Your task to perform on an android device: delete browsing data in the chrome app Image 0: 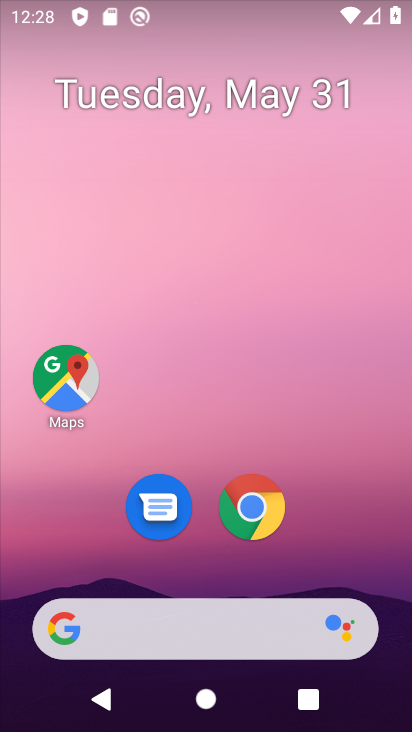
Step 0: drag from (380, 539) to (334, 91)
Your task to perform on an android device: delete browsing data in the chrome app Image 1: 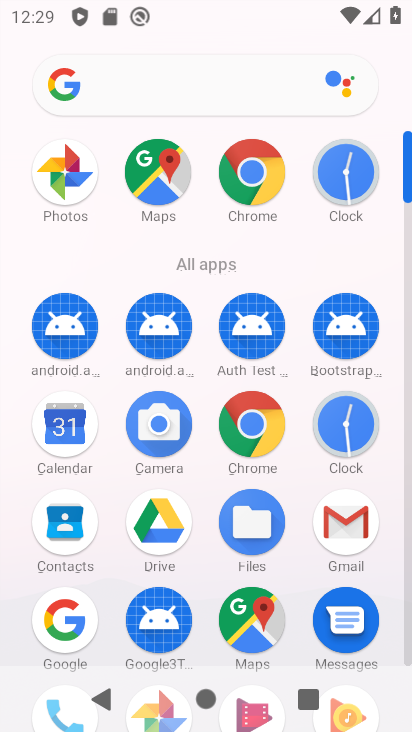
Step 1: click (264, 155)
Your task to perform on an android device: delete browsing data in the chrome app Image 2: 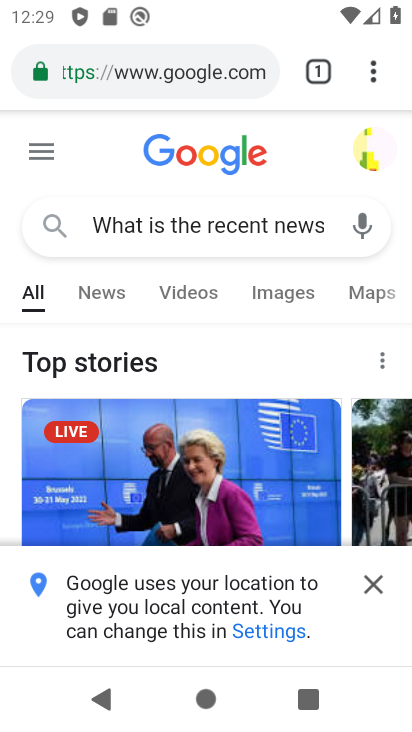
Step 2: drag from (364, 69) to (229, 491)
Your task to perform on an android device: delete browsing data in the chrome app Image 3: 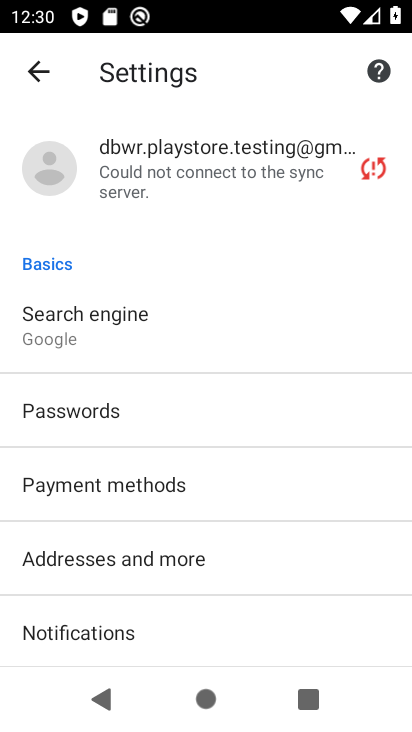
Step 3: drag from (246, 564) to (248, 223)
Your task to perform on an android device: delete browsing data in the chrome app Image 4: 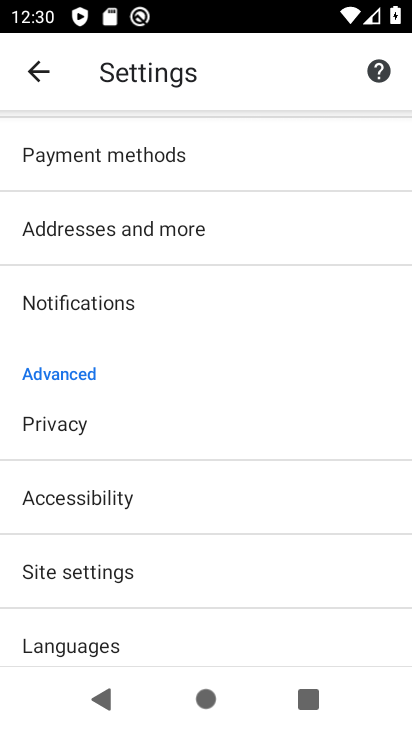
Step 4: click (51, 424)
Your task to perform on an android device: delete browsing data in the chrome app Image 5: 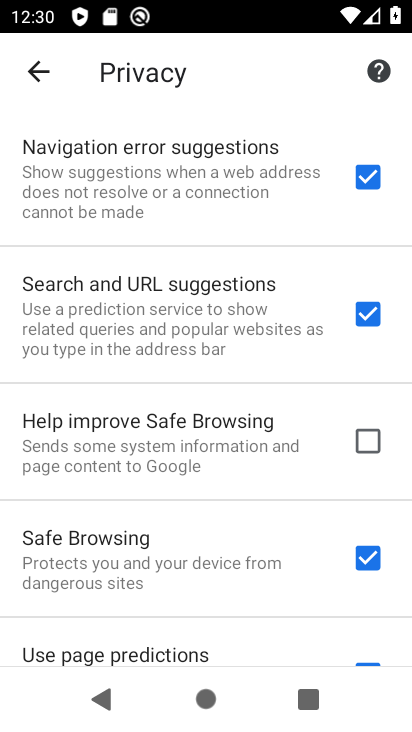
Step 5: drag from (271, 585) to (186, 141)
Your task to perform on an android device: delete browsing data in the chrome app Image 6: 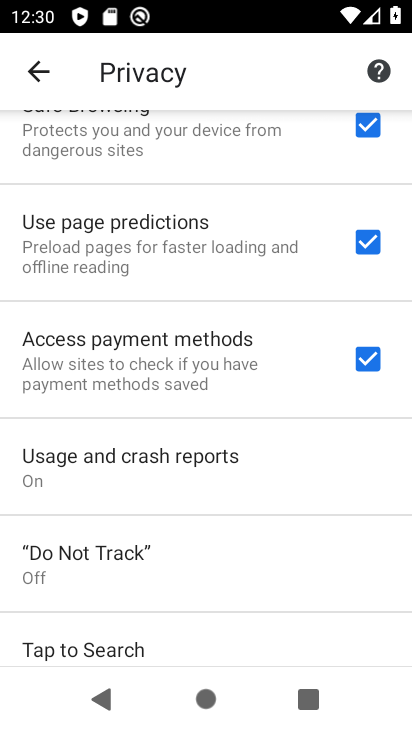
Step 6: drag from (259, 536) to (117, 8)
Your task to perform on an android device: delete browsing data in the chrome app Image 7: 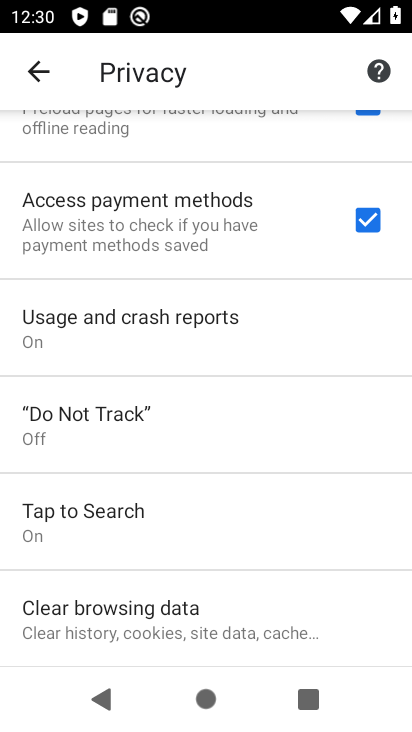
Step 7: click (179, 609)
Your task to perform on an android device: delete browsing data in the chrome app Image 8: 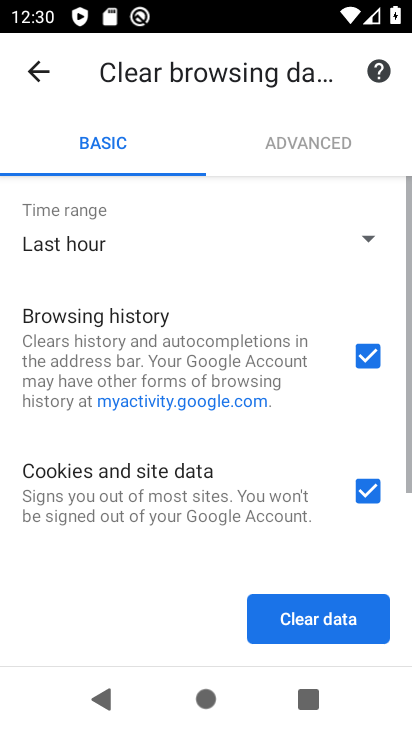
Step 8: click (279, 605)
Your task to perform on an android device: delete browsing data in the chrome app Image 9: 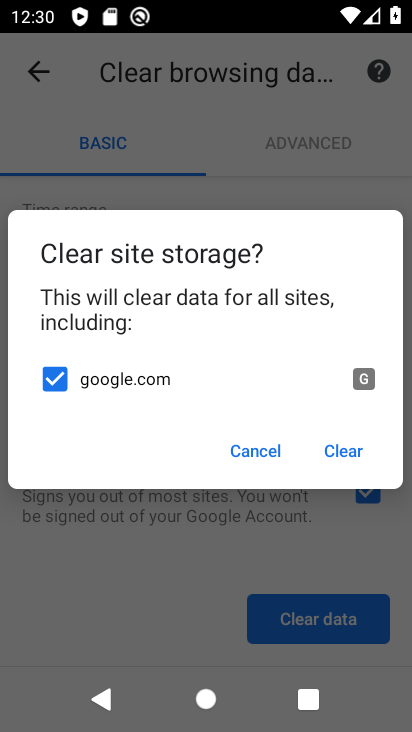
Step 9: click (345, 447)
Your task to perform on an android device: delete browsing data in the chrome app Image 10: 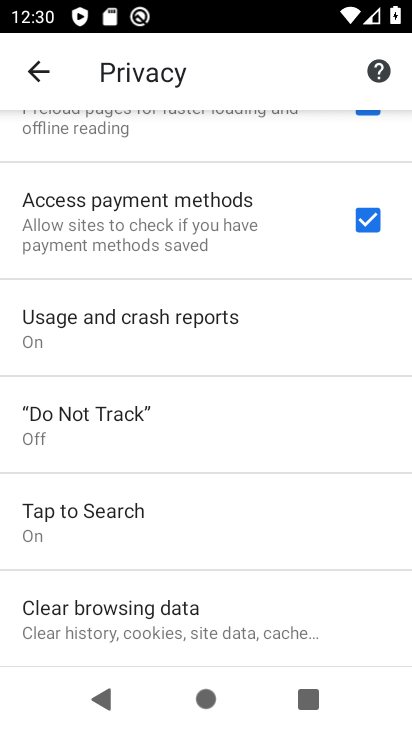
Step 10: task complete